Your task to perform on an android device: Go to accessibility settings Image 0: 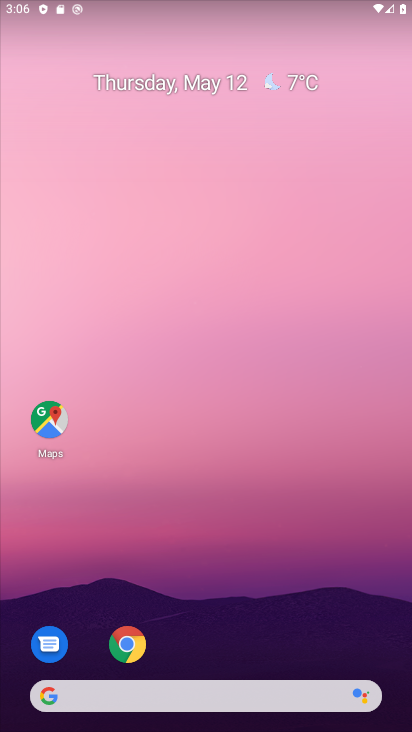
Step 0: drag from (307, 624) to (246, 152)
Your task to perform on an android device: Go to accessibility settings Image 1: 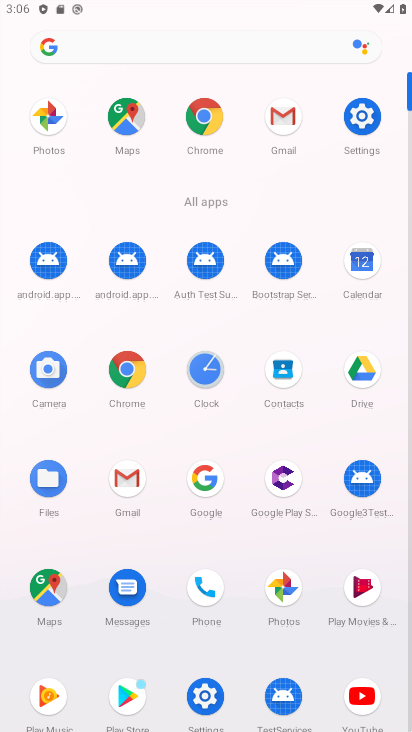
Step 1: click (373, 122)
Your task to perform on an android device: Go to accessibility settings Image 2: 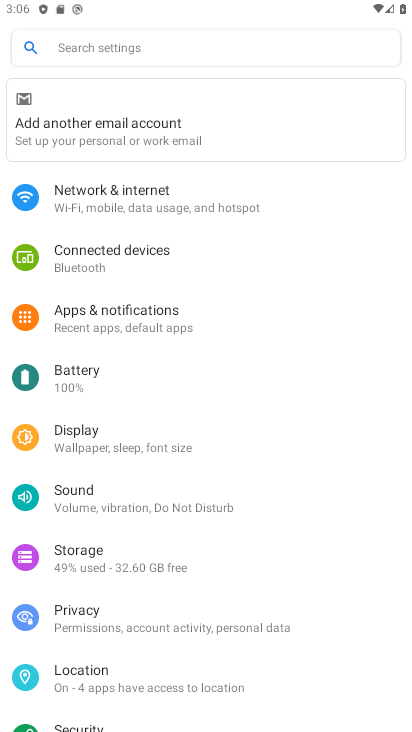
Step 2: drag from (183, 570) to (179, 213)
Your task to perform on an android device: Go to accessibility settings Image 3: 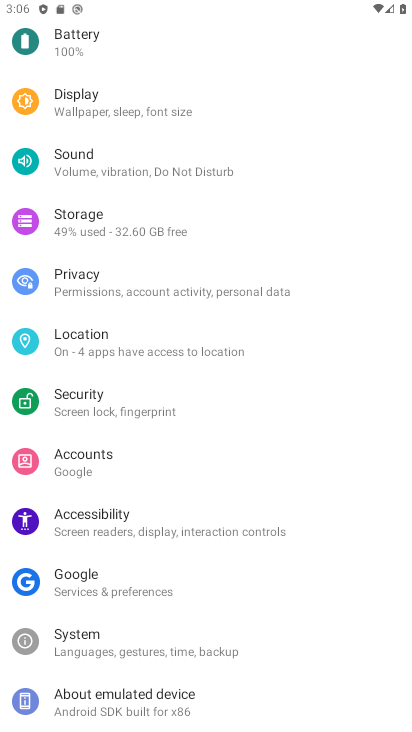
Step 3: click (145, 518)
Your task to perform on an android device: Go to accessibility settings Image 4: 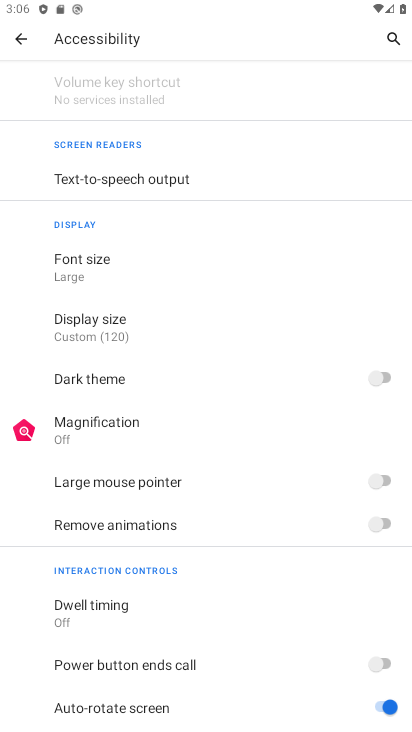
Step 4: task complete